Your task to perform on an android device: What is the recent news? Image 0: 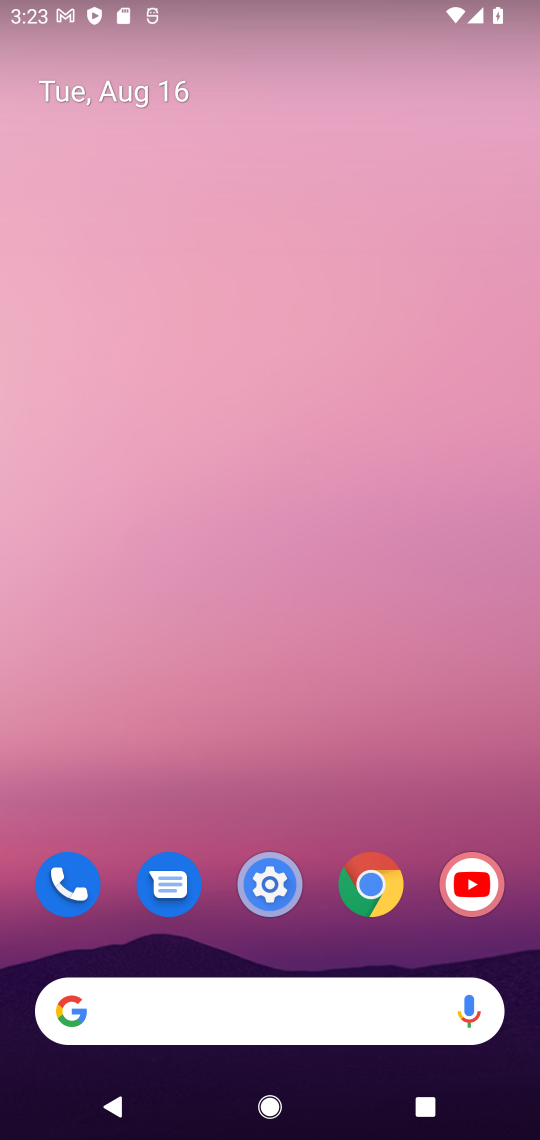
Step 0: drag from (314, 772) to (284, 256)
Your task to perform on an android device: What is the recent news? Image 1: 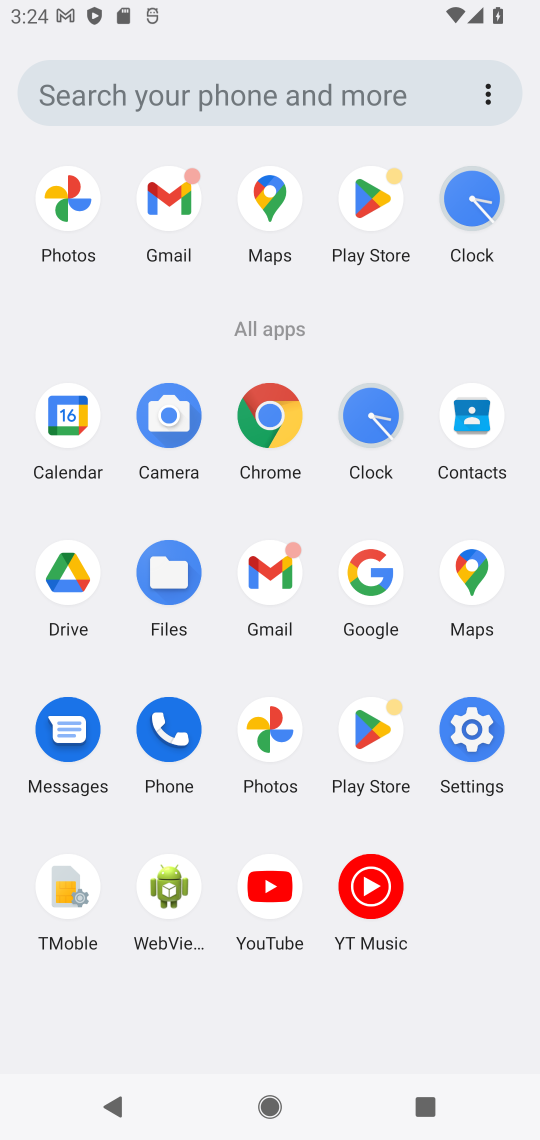
Step 1: click (368, 621)
Your task to perform on an android device: What is the recent news? Image 2: 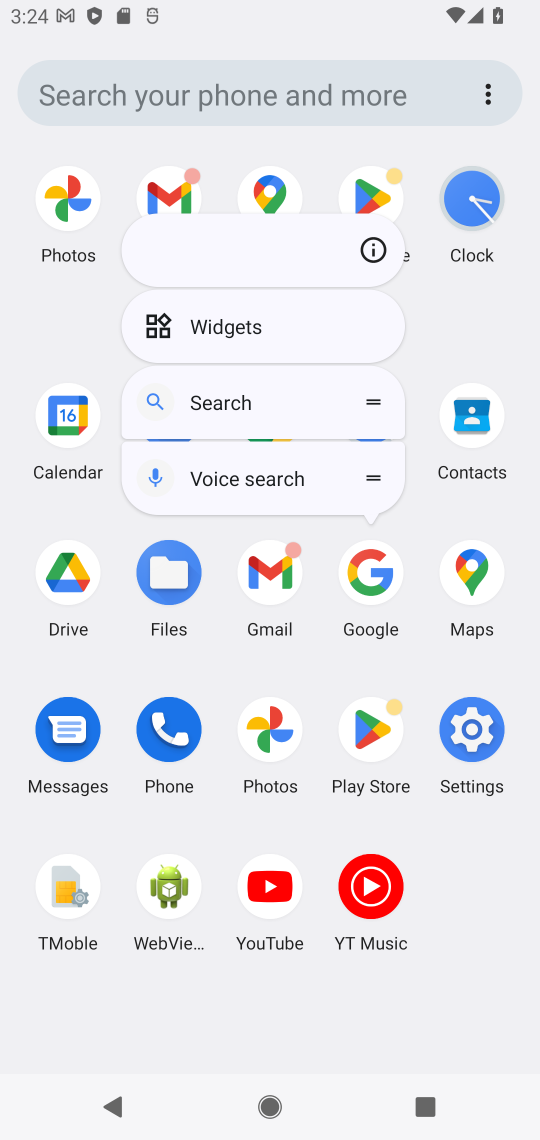
Step 2: click (368, 621)
Your task to perform on an android device: What is the recent news? Image 3: 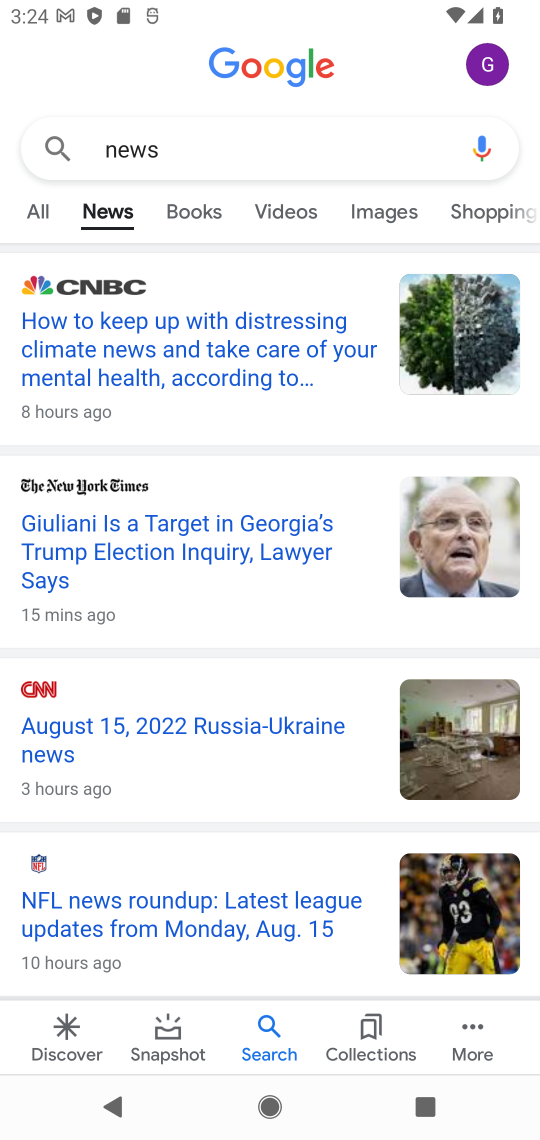
Step 3: task complete